Your task to perform on an android device: Open the calendar app, open the side menu, and click the "Day" option Image 0: 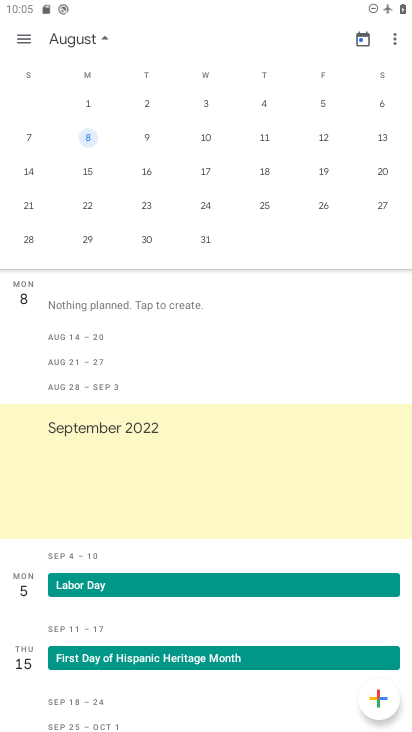
Step 0: press home button
Your task to perform on an android device: Open the calendar app, open the side menu, and click the "Day" option Image 1: 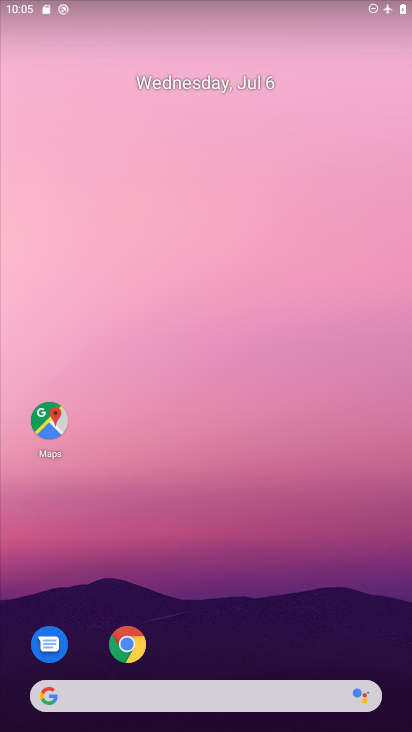
Step 1: drag from (199, 645) to (175, 172)
Your task to perform on an android device: Open the calendar app, open the side menu, and click the "Day" option Image 2: 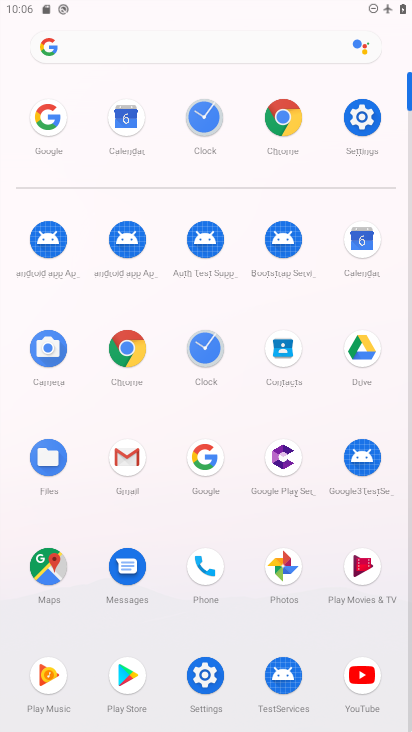
Step 2: click (364, 249)
Your task to perform on an android device: Open the calendar app, open the side menu, and click the "Day" option Image 3: 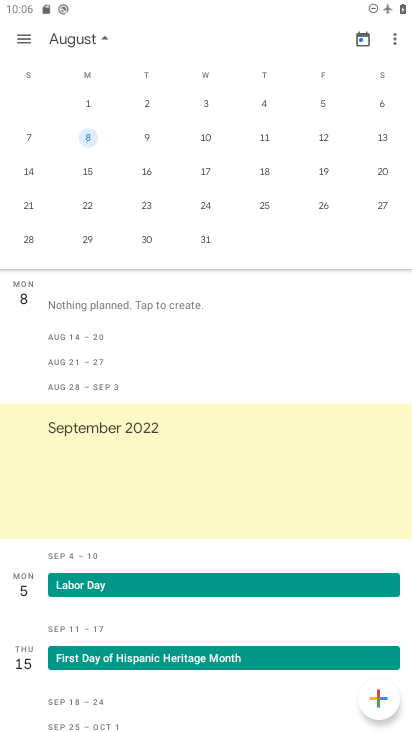
Step 3: click (16, 43)
Your task to perform on an android device: Open the calendar app, open the side menu, and click the "Day" option Image 4: 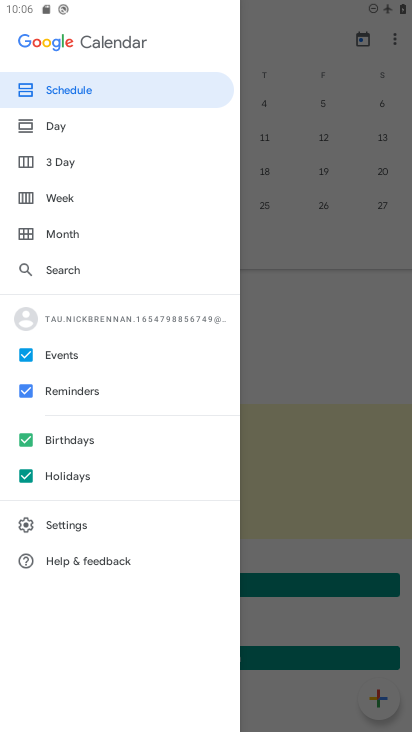
Step 4: click (83, 123)
Your task to perform on an android device: Open the calendar app, open the side menu, and click the "Day" option Image 5: 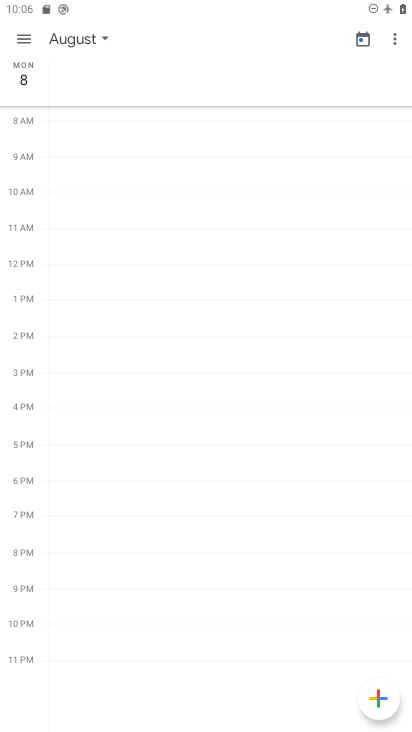
Step 5: task complete